Your task to perform on an android device: open app "Walmart Shopping & Grocery" Image 0: 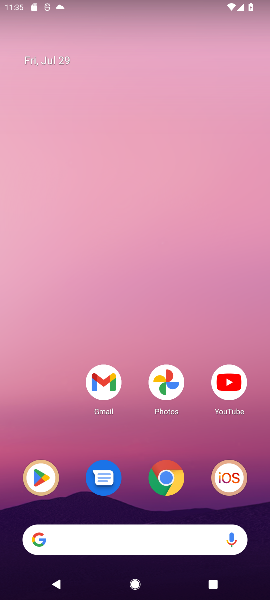
Step 0: click (43, 475)
Your task to perform on an android device: open app "Walmart Shopping & Grocery" Image 1: 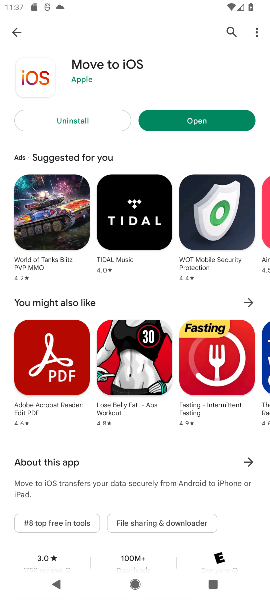
Step 1: click (14, 27)
Your task to perform on an android device: open app "Walmart Shopping & Grocery" Image 2: 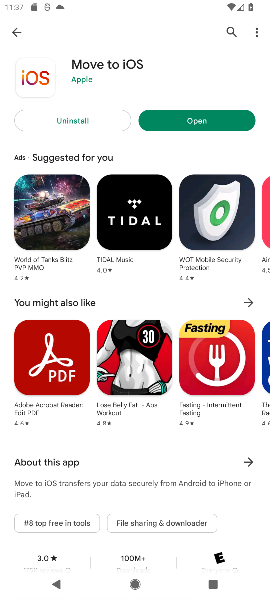
Step 2: click (14, 27)
Your task to perform on an android device: open app "Walmart Shopping & Grocery" Image 3: 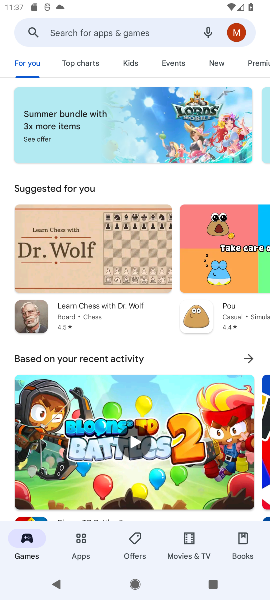
Step 3: click (86, 35)
Your task to perform on an android device: open app "Walmart Shopping & Grocery" Image 4: 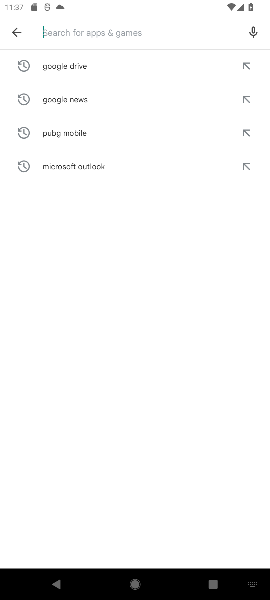
Step 4: type "Walmart Shopping "
Your task to perform on an android device: open app "Walmart Shopping & Grocery" Image 5: 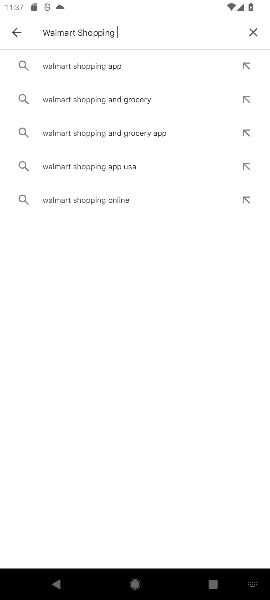
Step 5: click (77, 67)
Your task to perform on an android device: open app "Walmart Shopping & Grocery" Image 6: 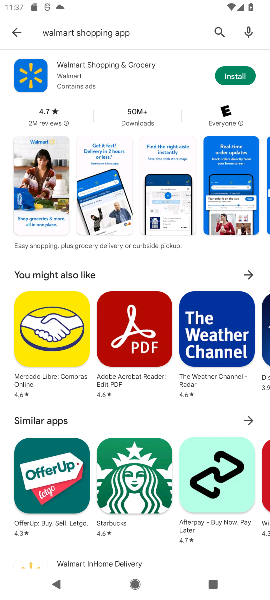
Step 6: task complete